Your task to perform on an android device: change notification settings in the gmail app Image 0: 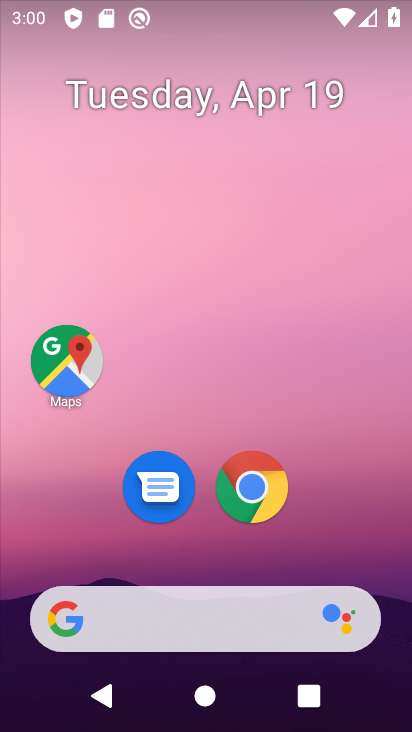
Step 0: drag from (207, 545) to (222, 59)
Your task to perform on an android device: change notification settings in the gmail app Image 1: 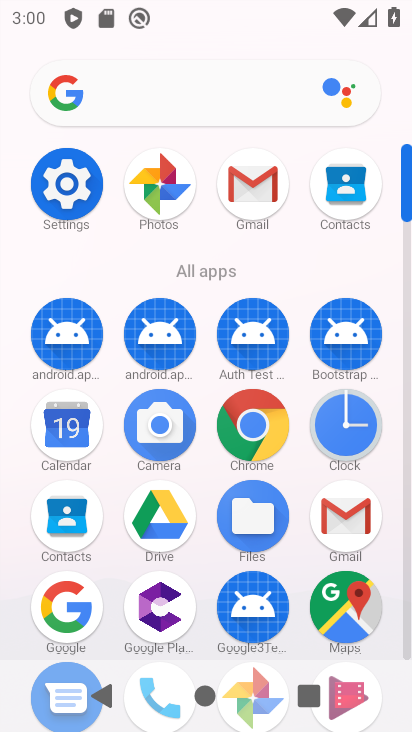
Step 1: click (250, 179)
Your task to perform on an android device: change notification settings in the gmail app Image 2: 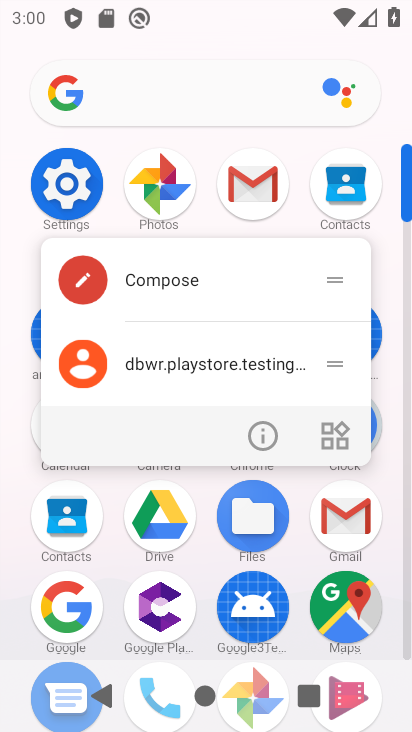
Step 2: click (269, 437)
Your task to perform on an android device: change notification settings in the gmail app Image 3: 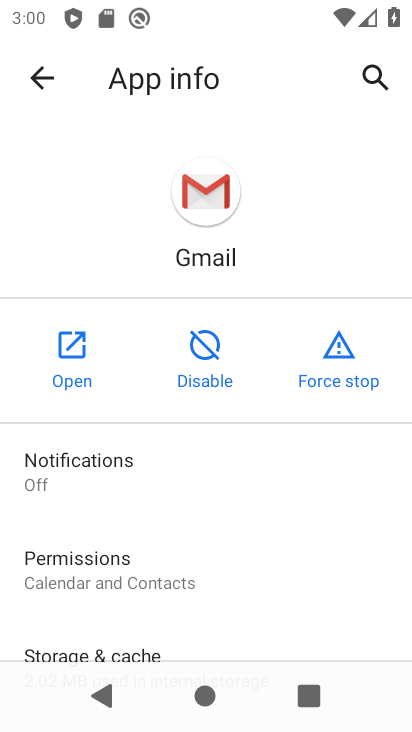
Step 3: task complete